Your task to perform on an android device: check data usage Image 0: 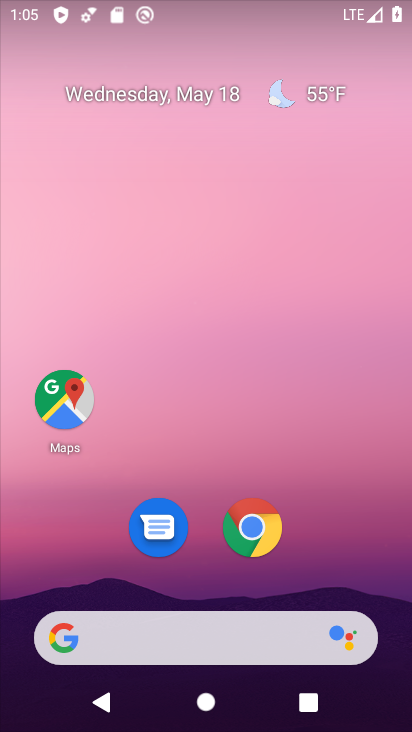
Step 0: drag from (343, 521) to (223, 40)
Your task to perform on an android device: check data usage Image 1: 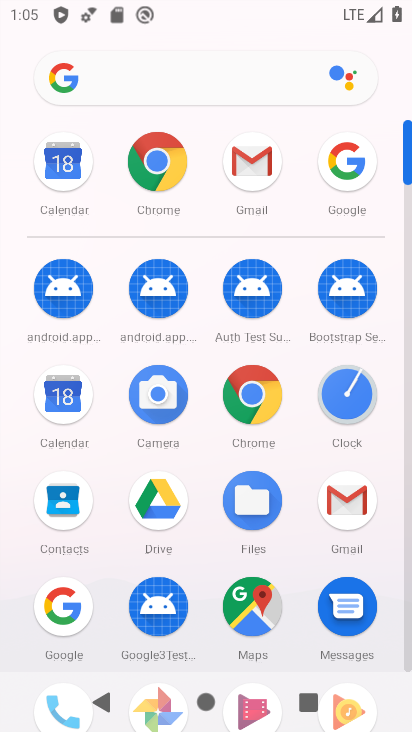
Step 1: drag from (293, 567) to (252, 96)
Your task to perform on an android device: check data usage Image 2: 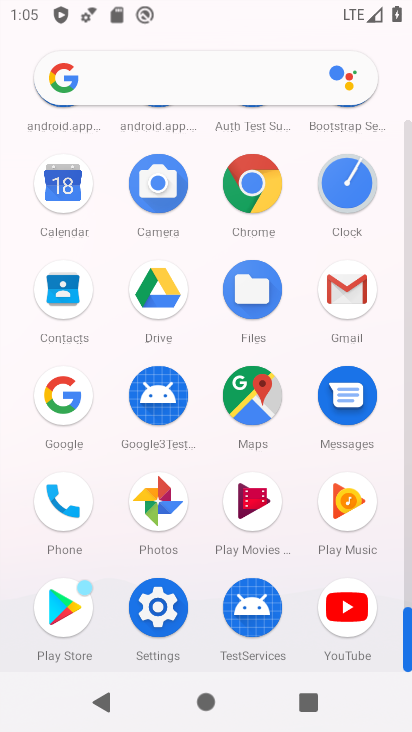
Step 2: click (160, 600)
Your task to perform on an android device: check data usage Image 3: 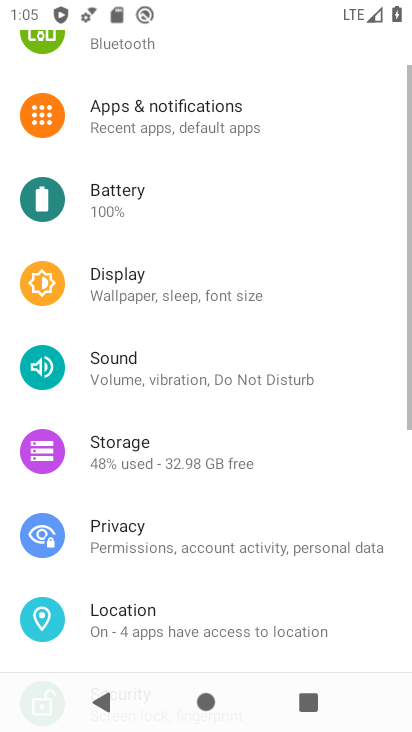
Step 3: drag from (266, 143) to (273, 706)
Your task to perform on an android device: check data usage Image 4: 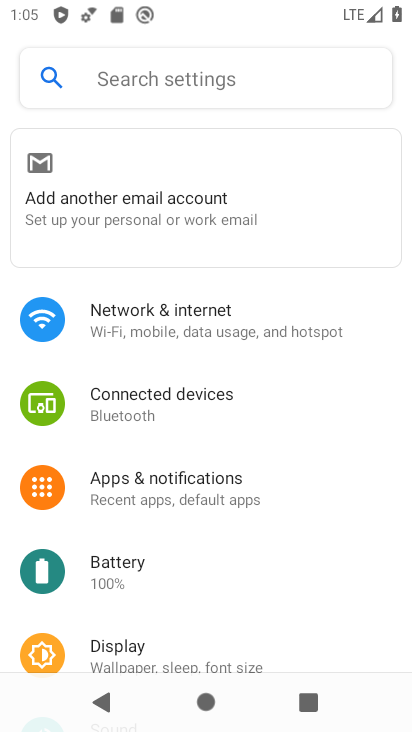
Step 4: click (207, 332)
Your task to perform on an android device: check data usage Image 5: 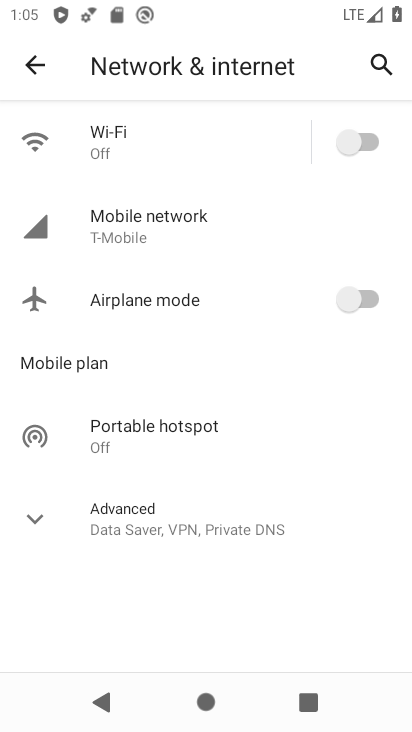
Step 5: click (180, 232)
Your task to perform on an android device: check data usage Image 6: 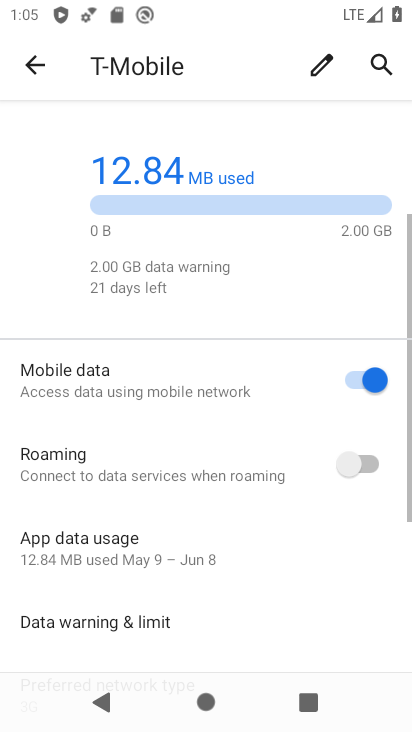
Step 6: task complete